Your task to perform on an android device: install app "TextNow: Call + Text Unlimited" Image 0: 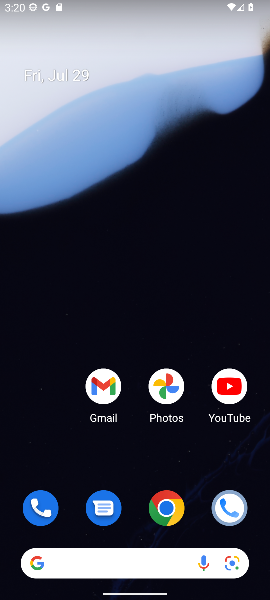
Step 0: drag from (222, 457) to (142, 34)
Your task to perform on an android device: install app "TextNow: Call + Text Unlimited" Image 1: 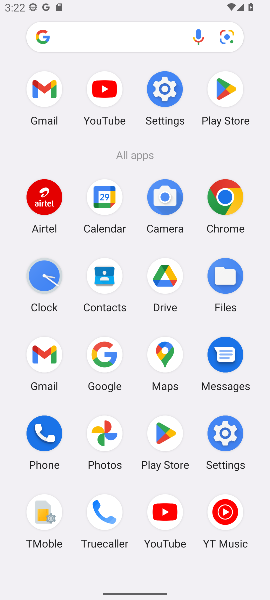
Step 1: click (169, 435)
Your task to perform on an android device: install app "TextNow: Call + Text Unlimited" Image 2: 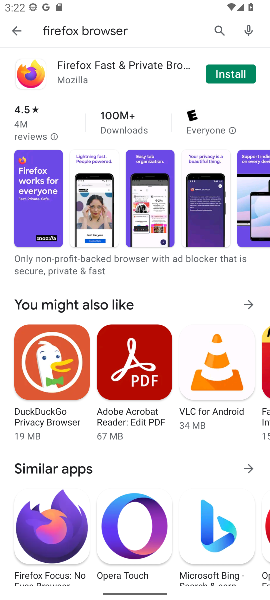
Step 2: press back button
Your task to perform on an android device: install app "TextNow: Call + Text Unlimited" Image 3: 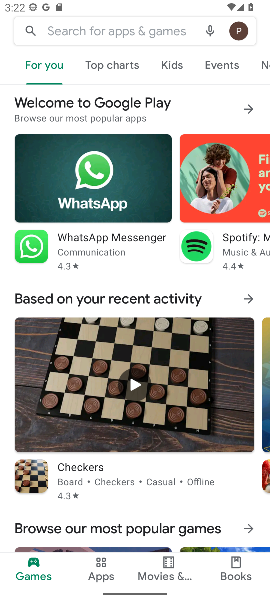
Step 3: click (110, 31)
Your task to perform on an android device: install app "TextNow: Call + Text Unlimited" Image 4: 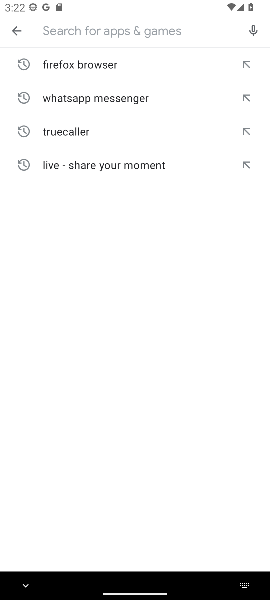
Step 4: type "TextNow: Call + Text Unlimited"
Your task to perform on an android device: install app "TextNow: Call + Text Unlimited" Image 5: 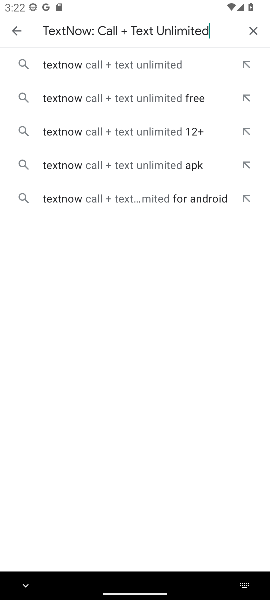
Step 5: click (97, 71)
Your task to perform on an android device: install app "TextNow: Call + Text Unlimited" Image 6: 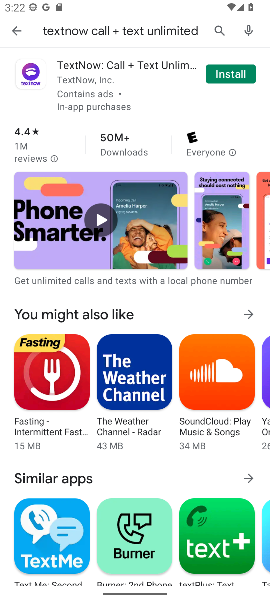
Step 6: click (238, 72)
Your task to perform on an android device: install app "TextNow: Call + Text Unlimited" Image 7: 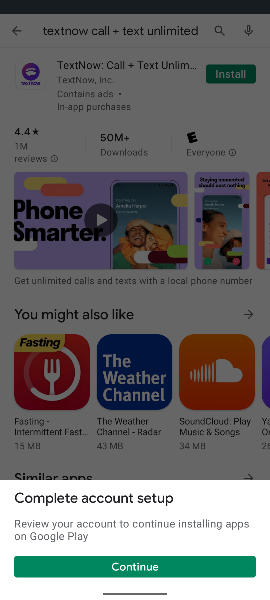
Step 7: click (108, 568)
Your task to perform on an android device: install app "TextNow: Call + Text Unlimited" Image 8: 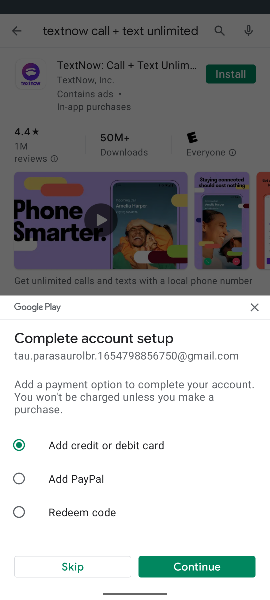
Step 8: click (89, 565)
Your task to perform on an android device: install app "TextNow: Call + Text Unlimited" Image 9: 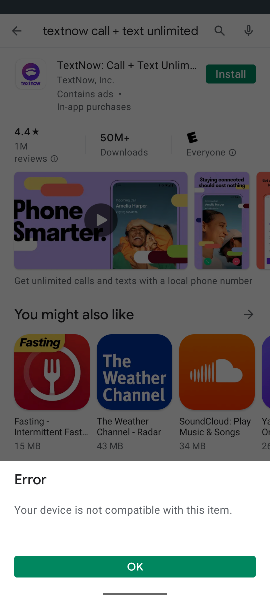
Step 9: click (128, 565)
Your task to perform on an android device: install app "TextNow: Call + Text Unlimited" Image 10: 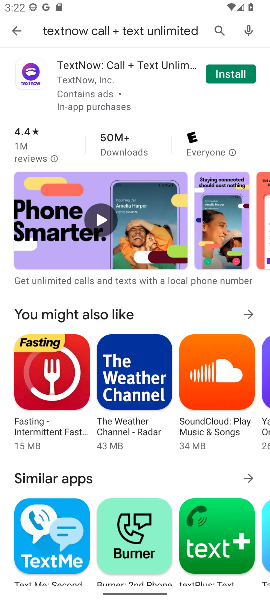
Step 10: click (215, 64)
Your task to perform on an android device: install app "TextNow: Call + Text Unlimited" Image 11: 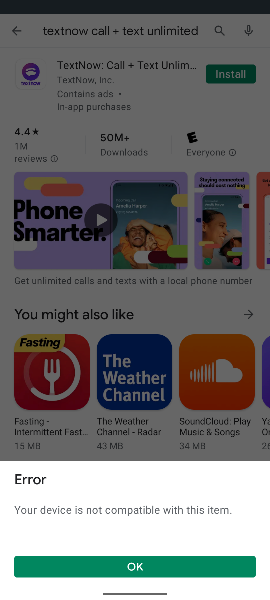
Step 11: task complete